Your task to perform on an android device: turn on wifi Image 0: 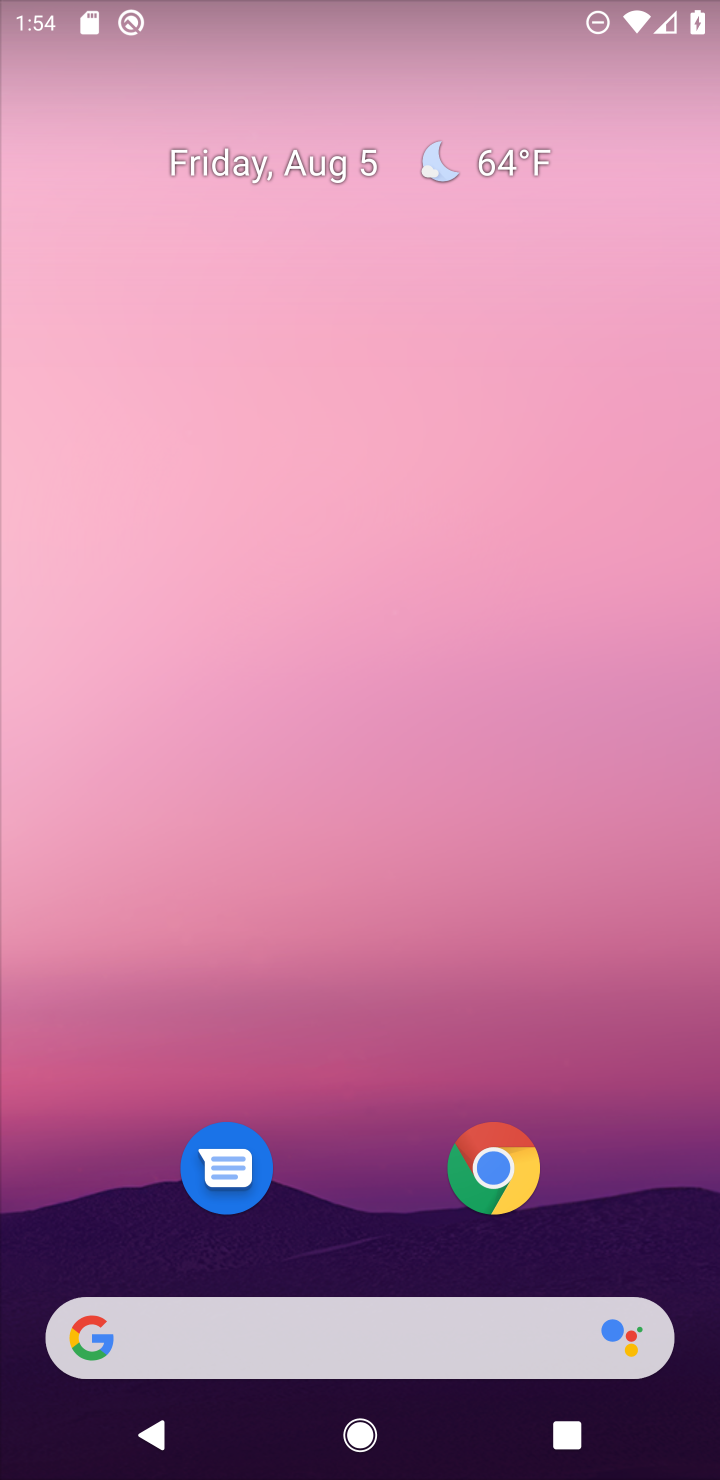
Step 0: drag from (414, 700) to (419, 1223)
Your task to perform on an android device: turn on wifi Image 1: 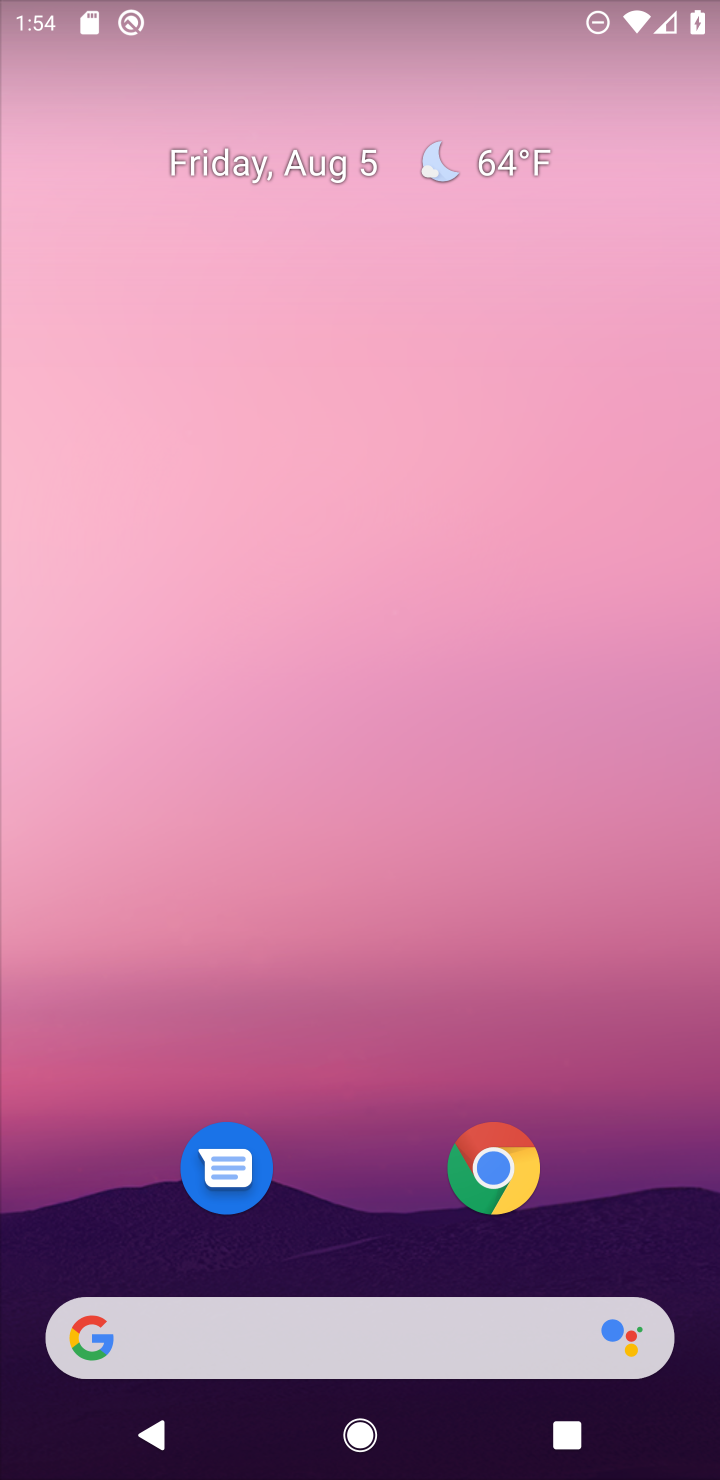
Step 1: task complete